Your task to perform on an android device: Play the last video I watched on Youtube Image 0: 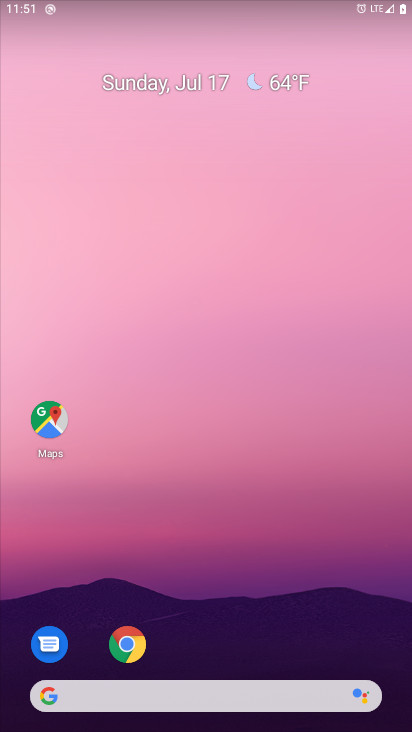
Step 0: press home button
Your task to perform on an android device: Play the last video I watched on Youtube Image 1: 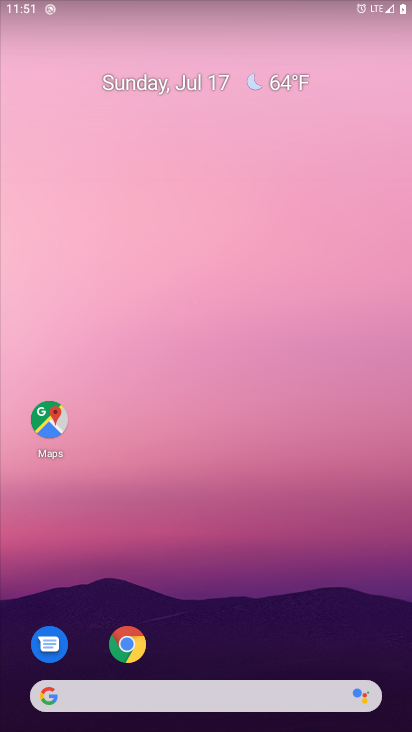
Step 1: drag from (301, 644) to (337, 122)
Your task to perform on an android device: Play the last video I watched on Youtube Image 2: 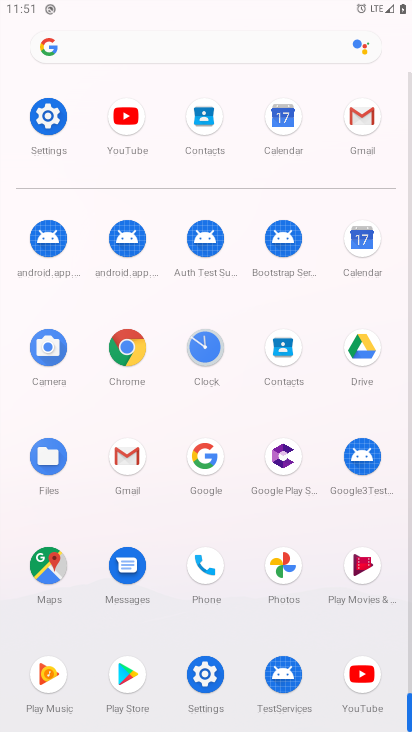
Step 2: click (362, 677)
Your task to perform on an android device: Play the last video I watched on Youtube Image 3: 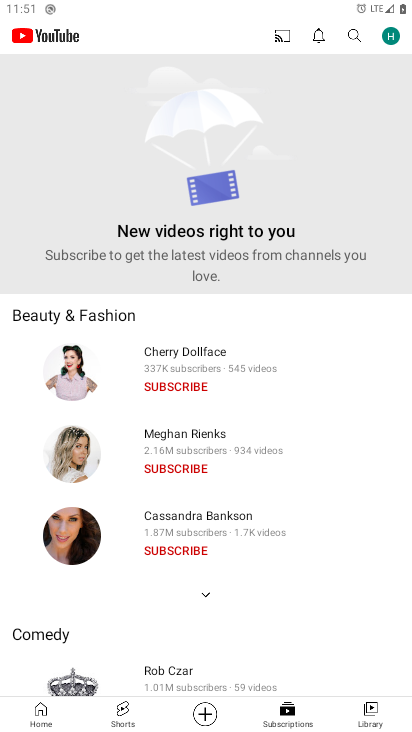
Step 3: click (372, 703)
Your task to perform on an android device: Play the last video I watched on Youtube Image 4: 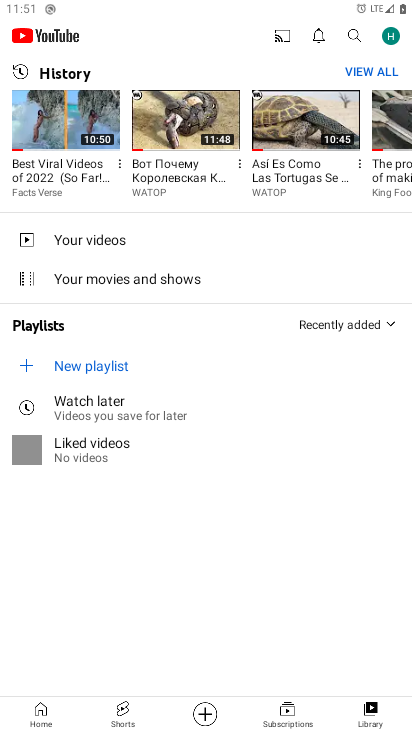
Step 4: click (371, 69)
Your task to perform on an android device: Play the last video I watched on Youtube Image 5: 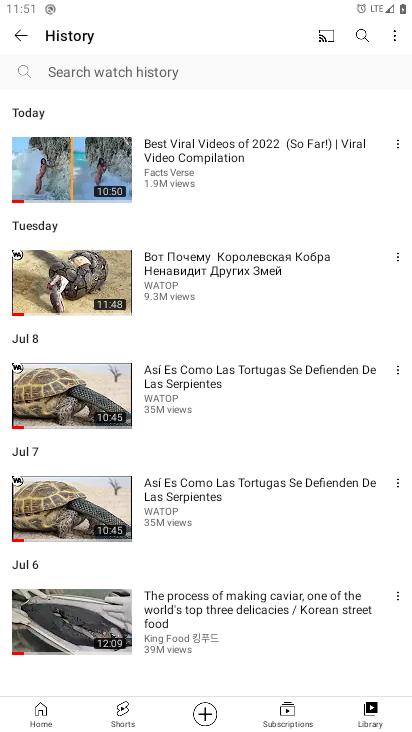
Step 5: click (95, 131)
Your task to perform on an android device: Play the last video I watched on Youtube Image 6: 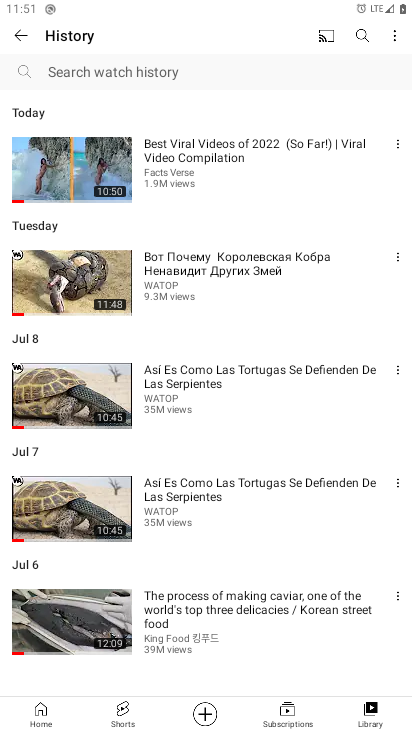
Step 6: click (91, 141)
Your task to perform on an android device: Play the last video I watched on Youtube Image 7: 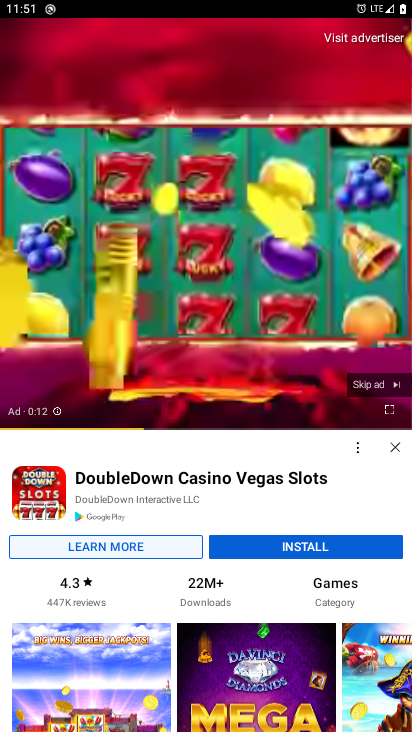
Step 7: click (383, 386)
Your task to perform on an android device: Play the last video I watched on Youtube Image 8: 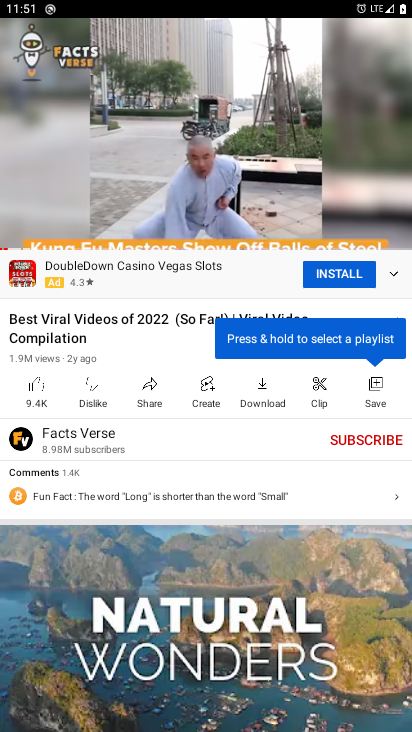
Step 8: task complete